Your task to perform on an android device: uninstall "NewsBreak: Local News & Alerts" Image 0: 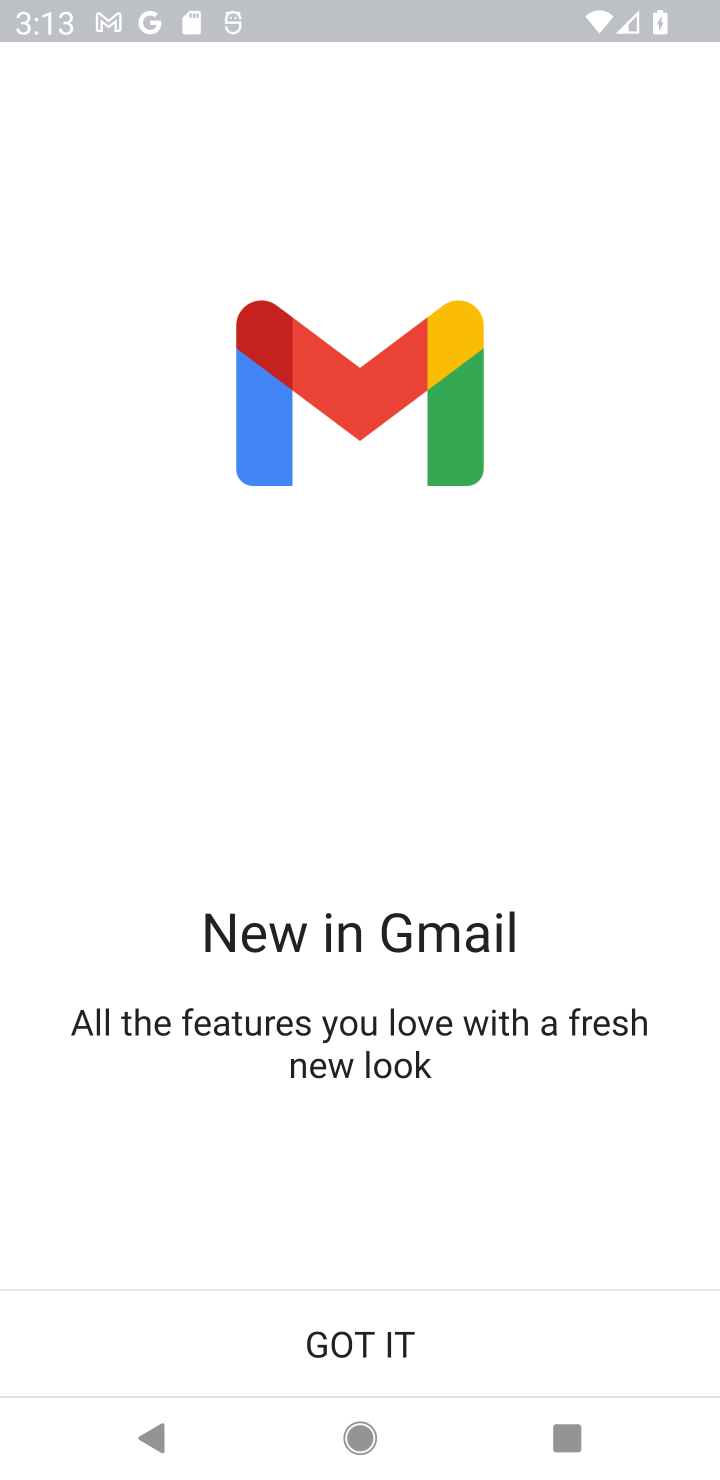
Step 0: press back button
Your task to perform on an android device: uninstall "NewsBreak: Local News & Alerts" Image 1: 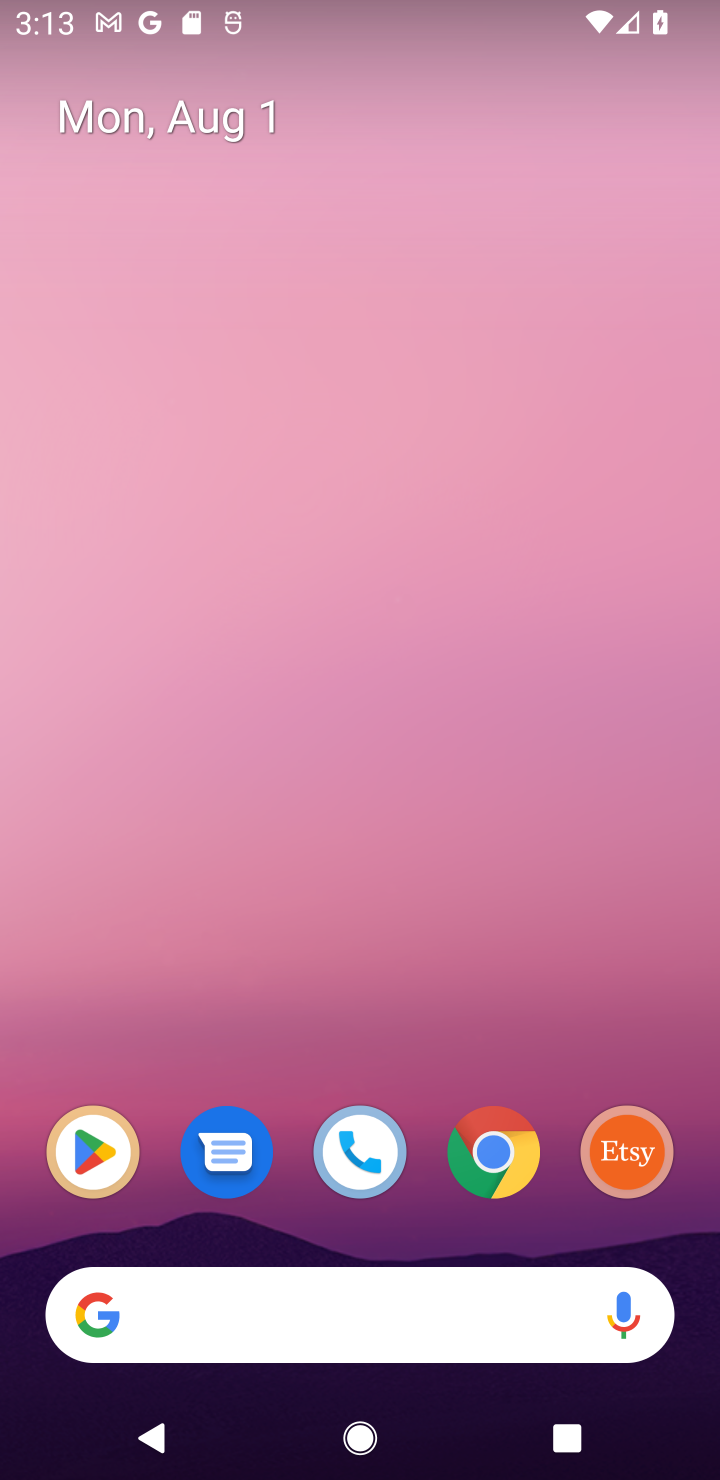
Step 1: click (88, 1177)
Your task to perform on an android device: uninstall "NewsBreak: Local News & Alerts" Image 2: 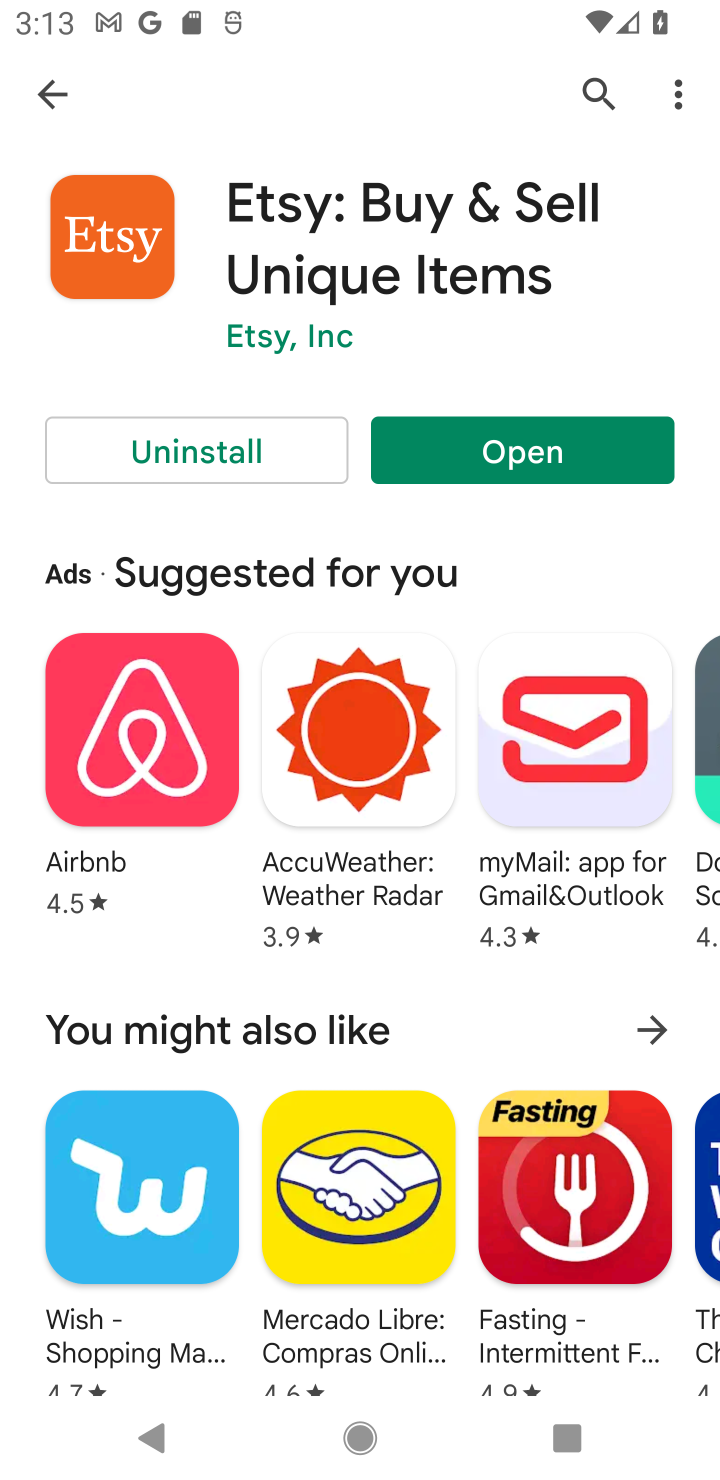
Step 2: click (46, 77)
Your task to perform on an android device: uninstall "NewsBreak: Local News & Alerts" Image 3: 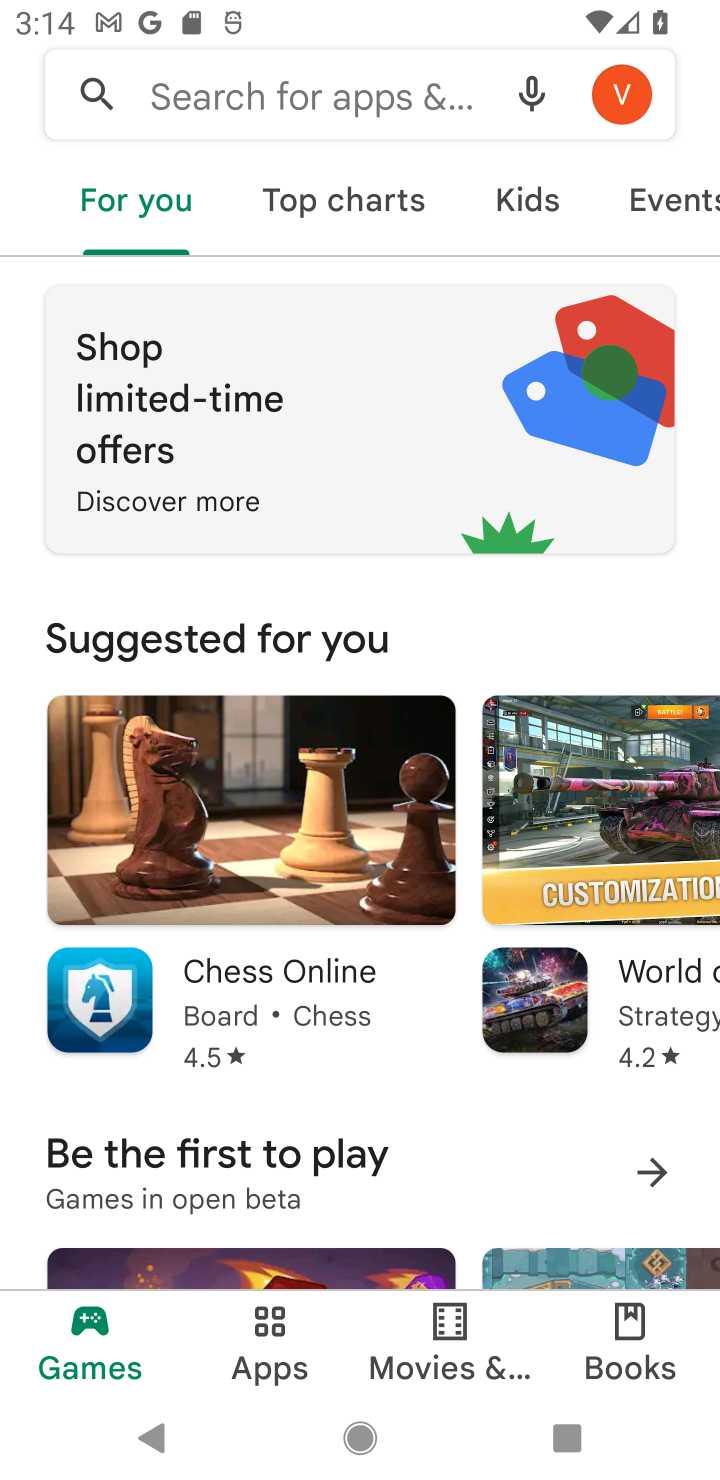
Step 3: click (290, 95)
Your task to perform on an android device: uninstall "NewsBreak: Local News & Alerts" Image 4: 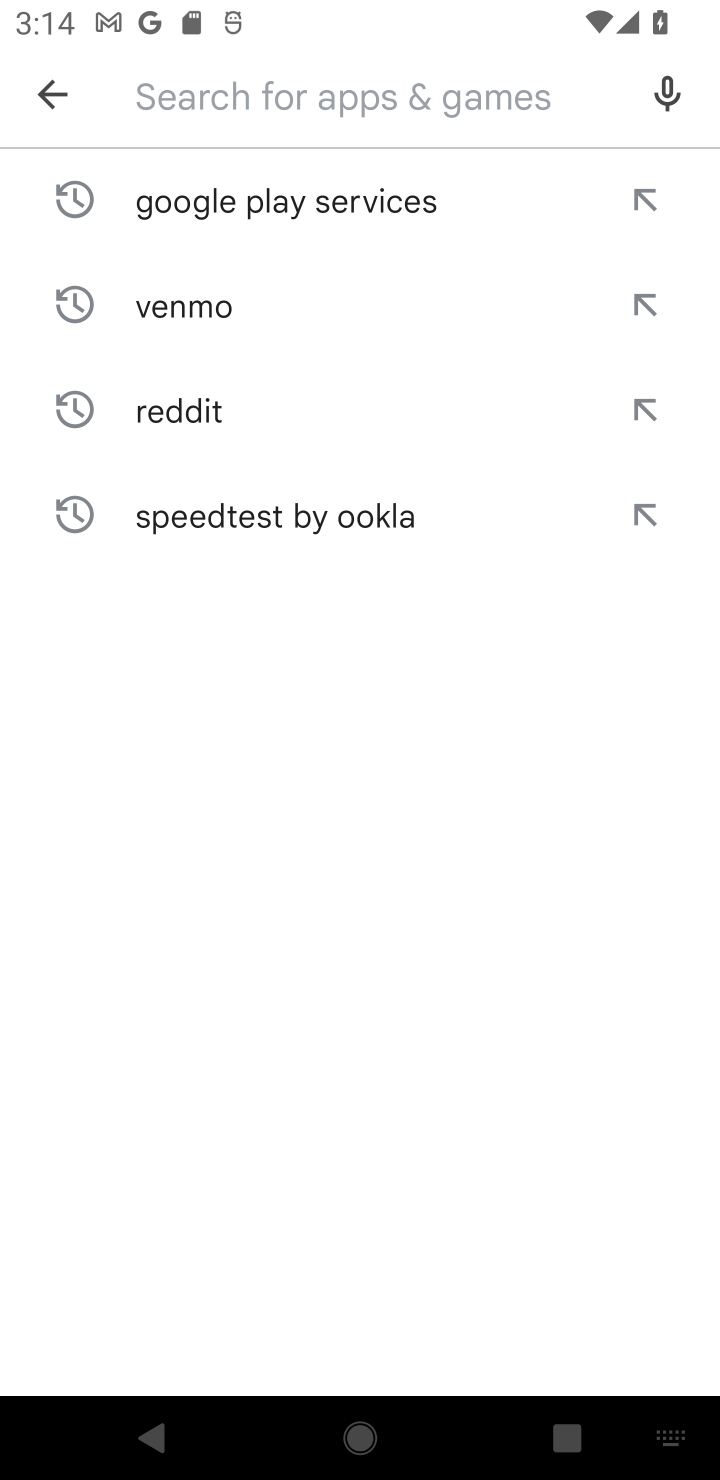
Step 4: type "NewsBreak"
Your task to perform on an android device: uninstall "NewsBreak: Local News & Alerts" Image 5: 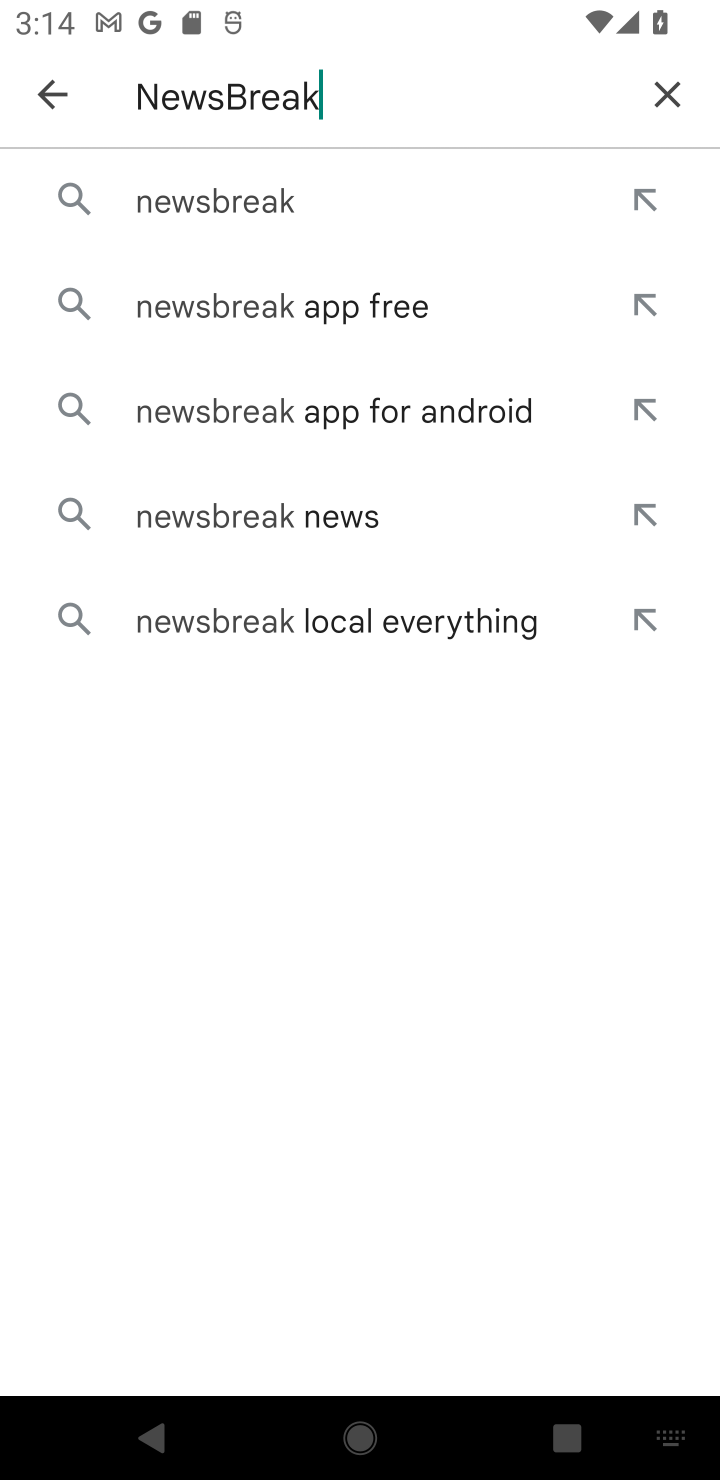
Step 5: click (243, 179)
Your task to perform on an android device: uninstall "NewsBreak: Local News & Alerts" Image 6: 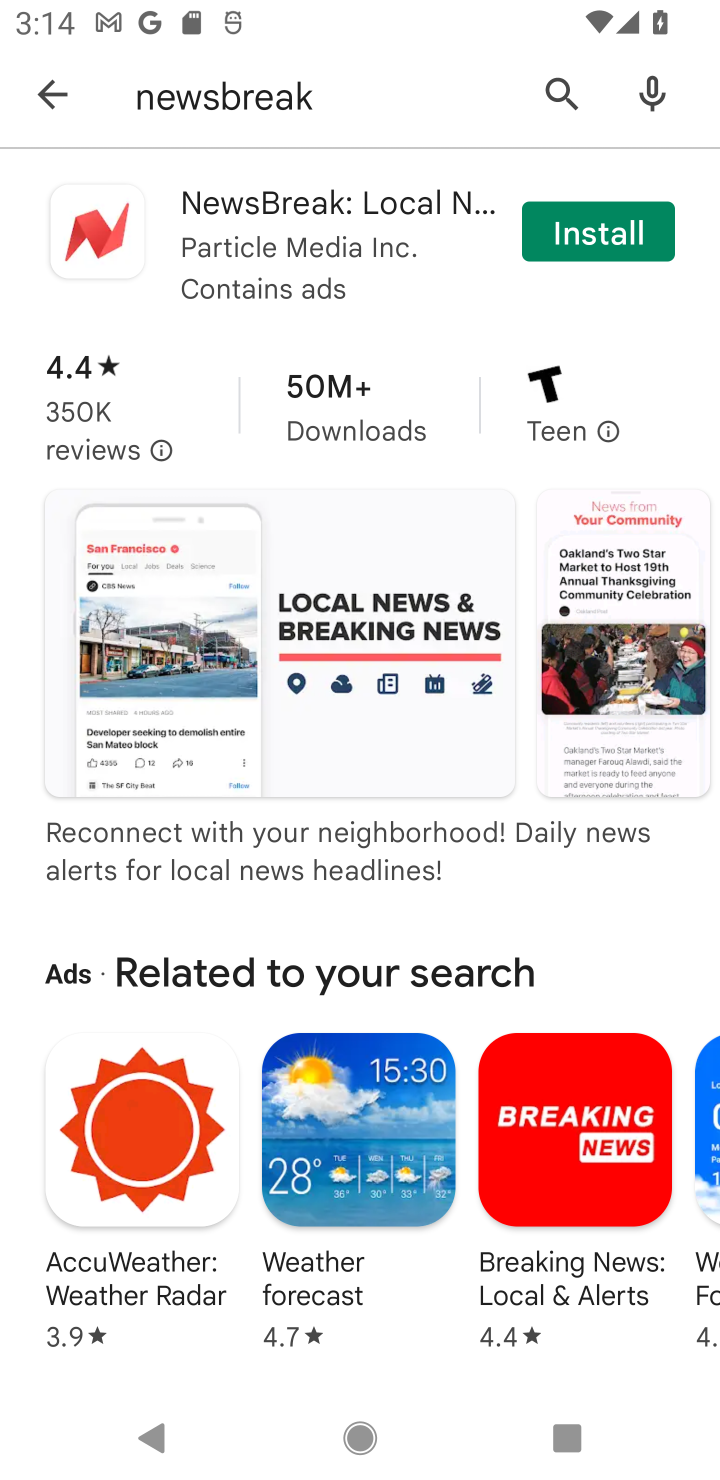
Step 6: click (665, 262)
Your task to perform on an android device: uninstall "NewsBreak: Local News & Alerts" Image 7: 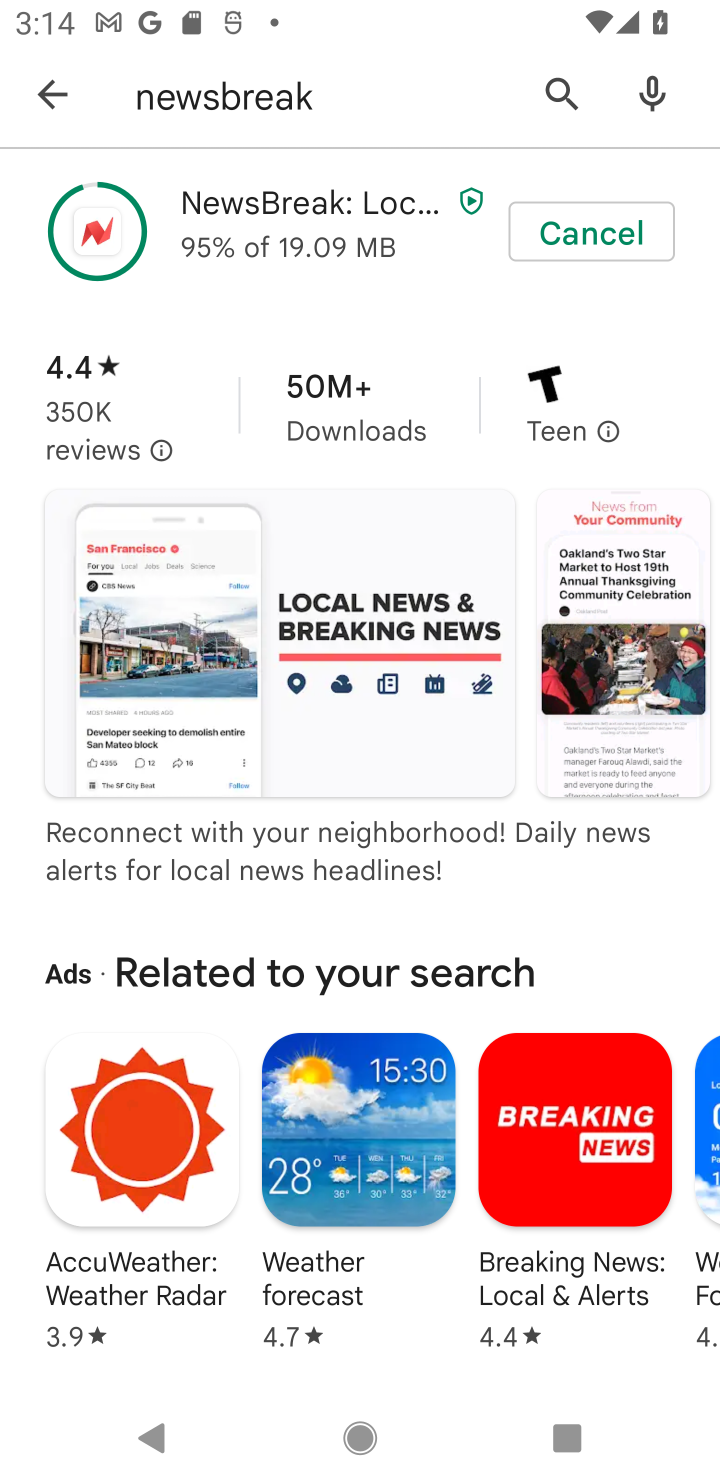
Step 7: task complete